Your task to perform on an android device: Open display settings Image 0: 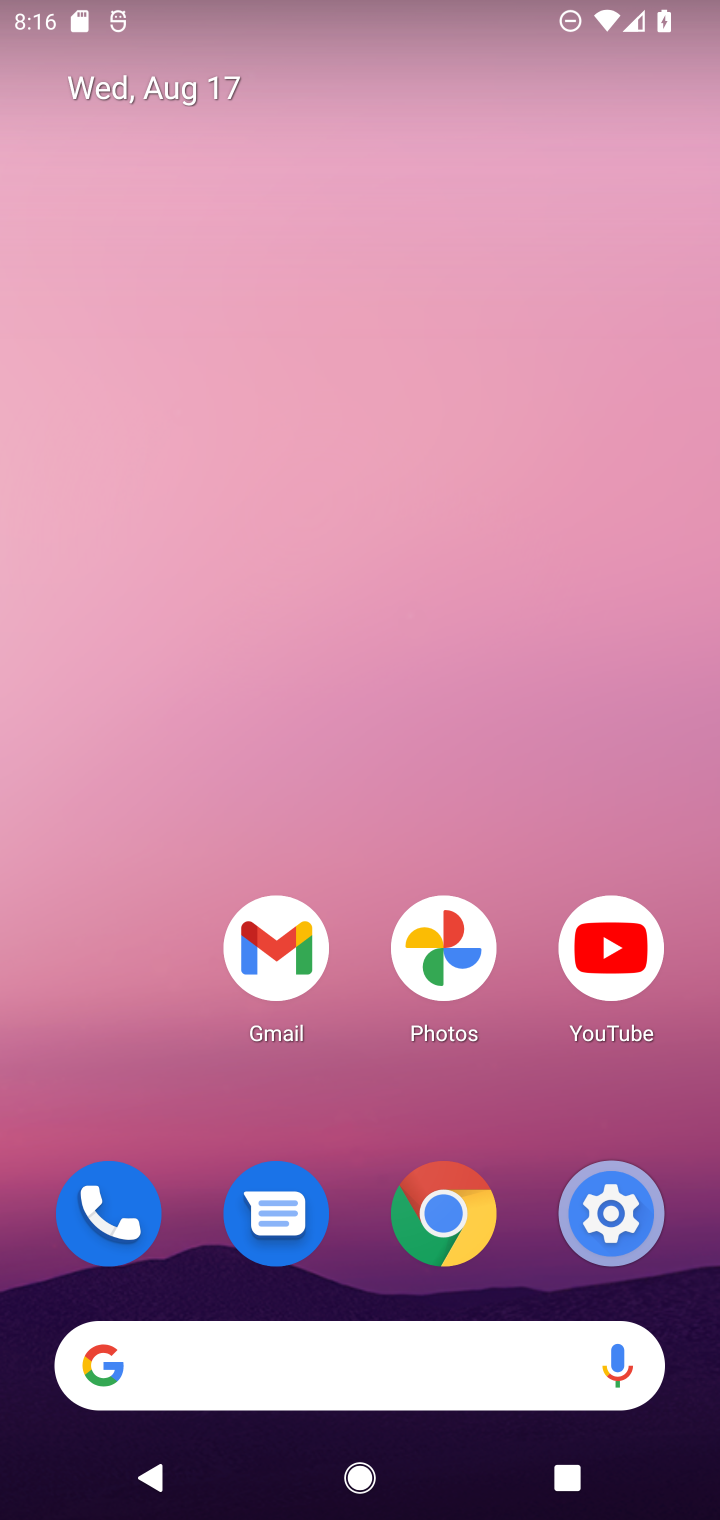
Step 0: click (615, 1225)
Your task to perform on an android device: Open display settings Image 1: 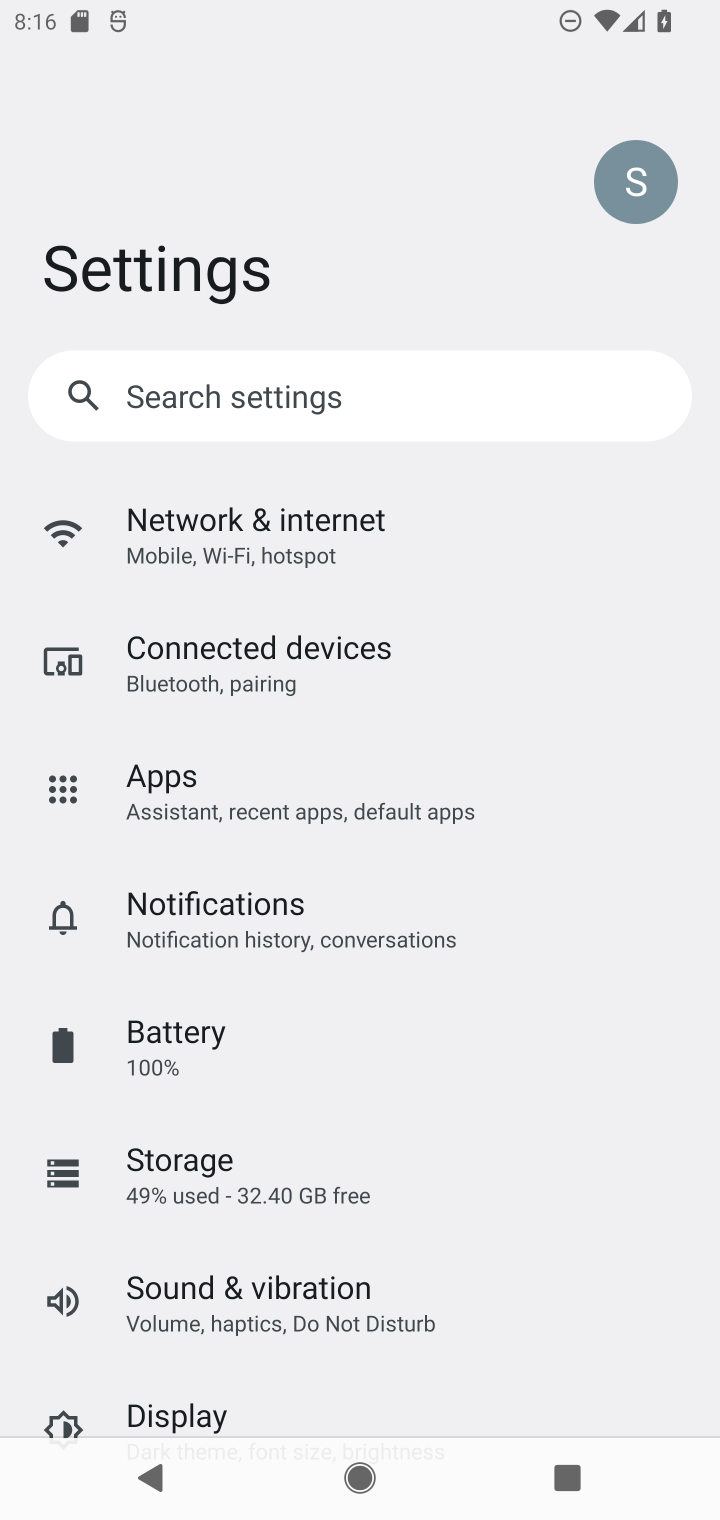
Step 1: drag from (310, 1211) to (364, 610)
Your task to perform on an android device: Open display settings Image 2: 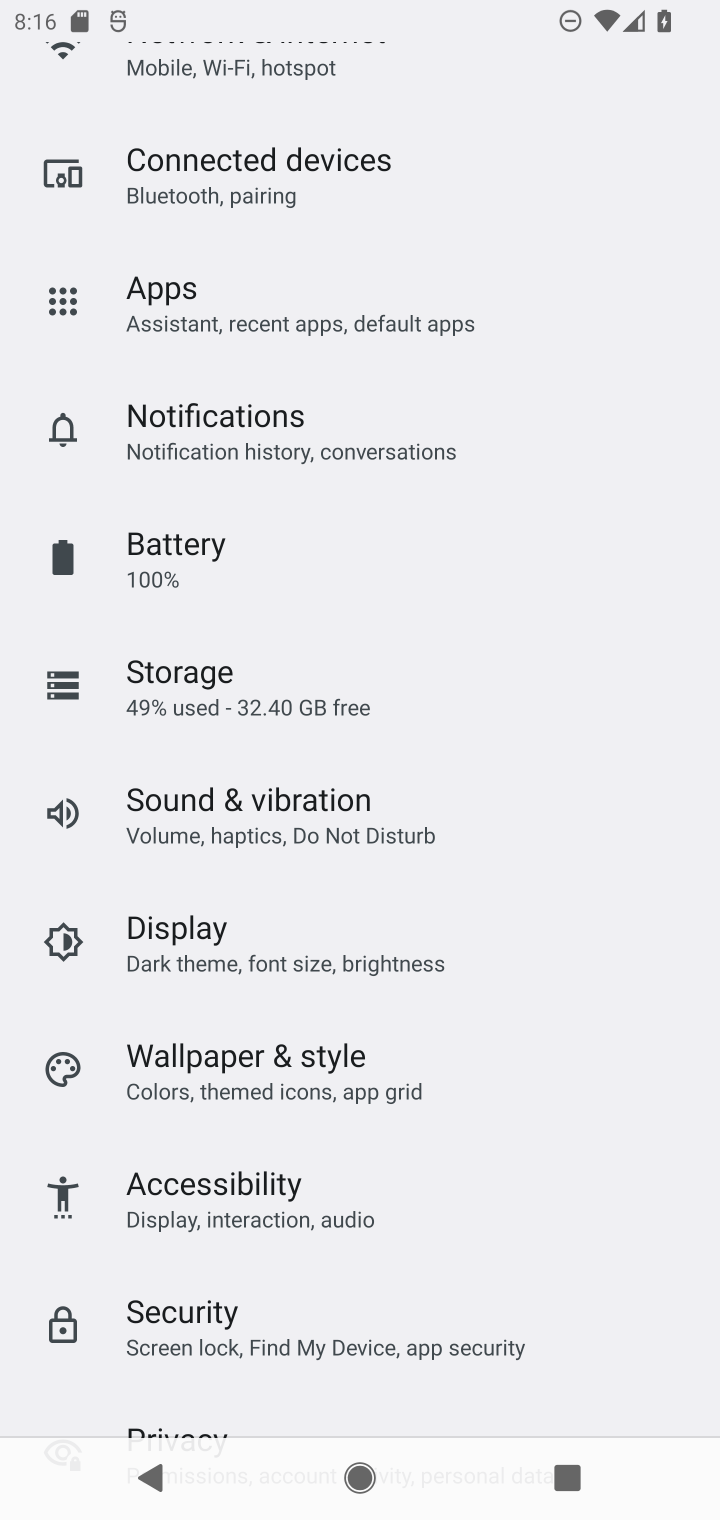
Step 2: click (249, 1063)
Your task to perform on an android device: Open display settings Image 3: 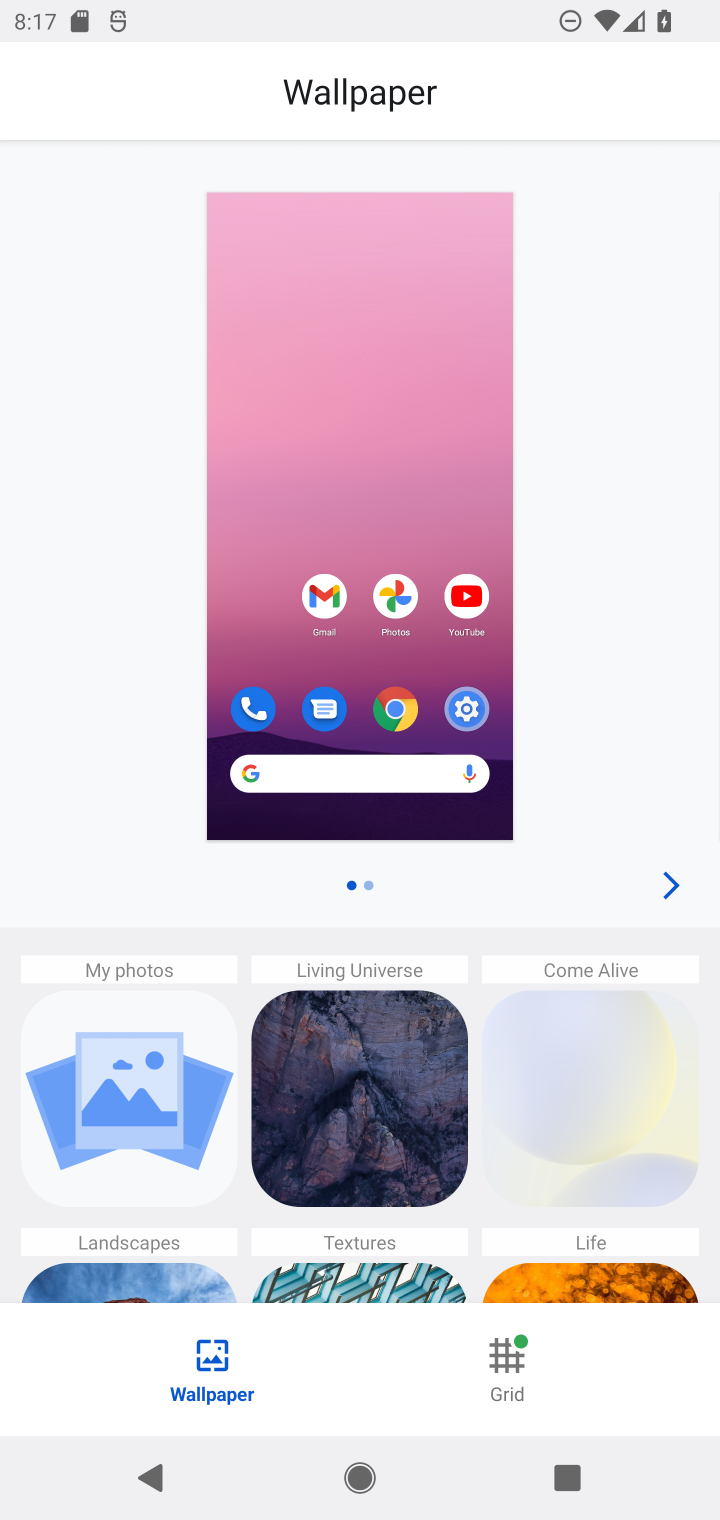
Step 3: task complete